Your task to perform on an android device: search for starred emails in the gmail app Image 0: 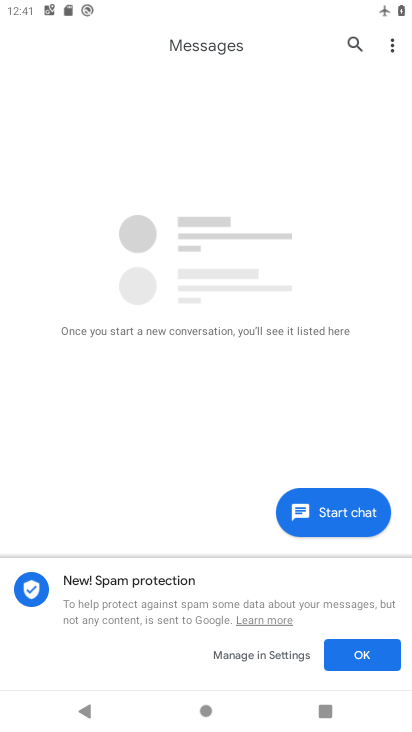
Step 0: press home button
Your task to perform on an android device: search for starred emails in the gmail app Image 1: 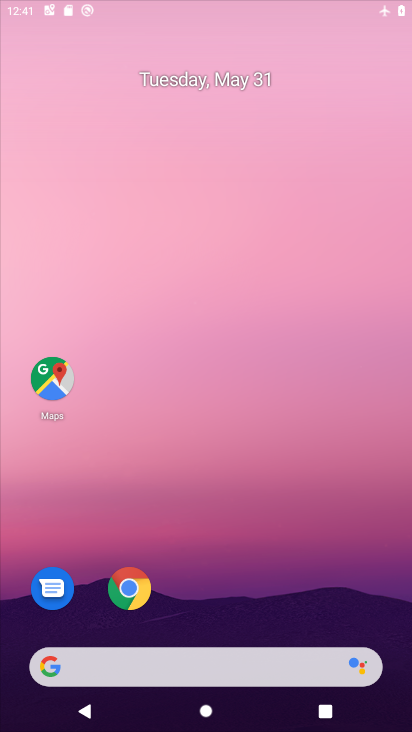
Step 1: drag from (346, 582) to (411, 457)
Your task to perform on an android device: search for starred emails in the gmail app Image 2: 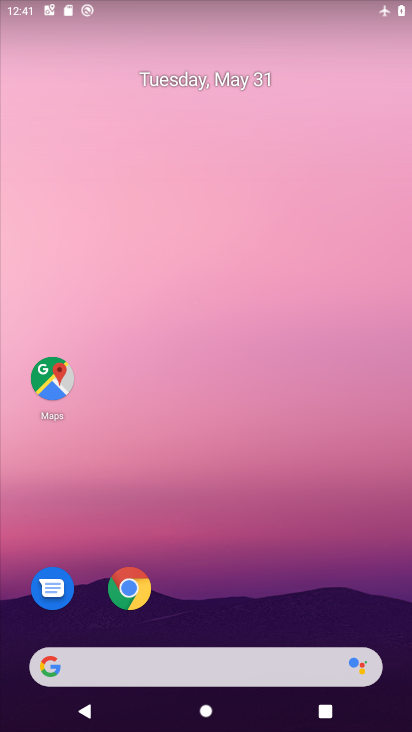
Step 2: drag from (182, 585) to (262, 16)
Your task to perform on an android device: search for starred emails in the gmail app Image 3: 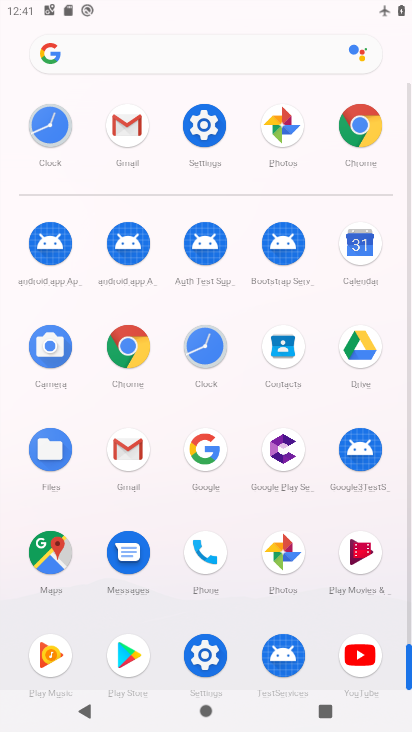
Step 3: click (132, 458)
Your task to perform on an android device: search for starred emails in the gmail app Image 4: 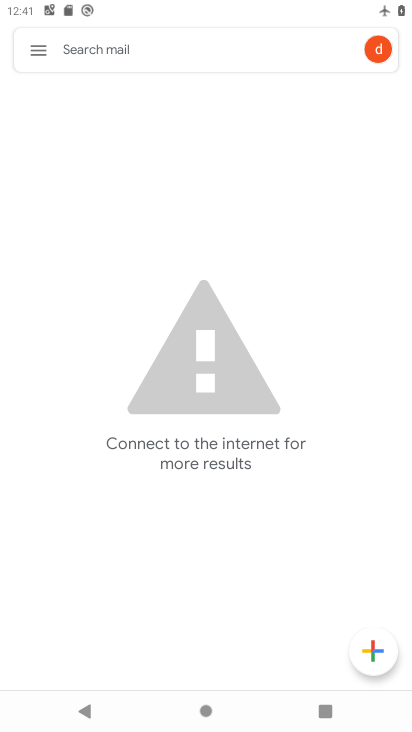
Step 4: click (35, 42)
Your task to perform on an android device: search for starred emails in the gmail app Image 5: 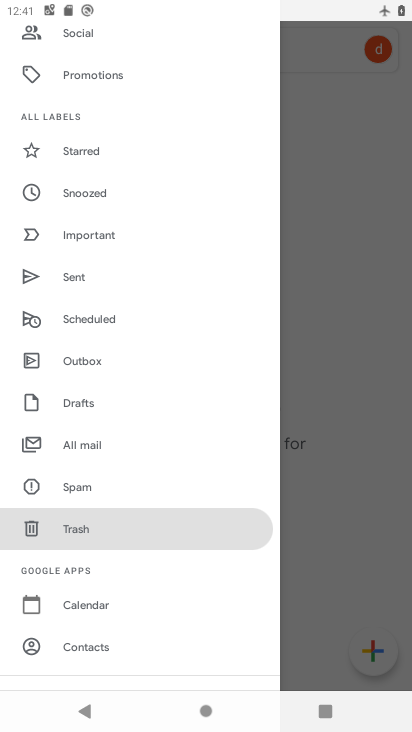
Step 5: click (97, 161)
Your task to perform on an android device: search for starred emails in the gmail app Image 6: 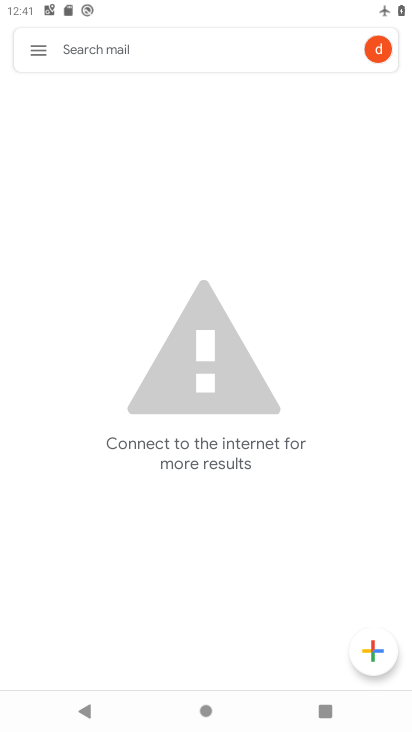
Step 6: task complete